Your task to perform on an android device: Open wifi settings Image 0: 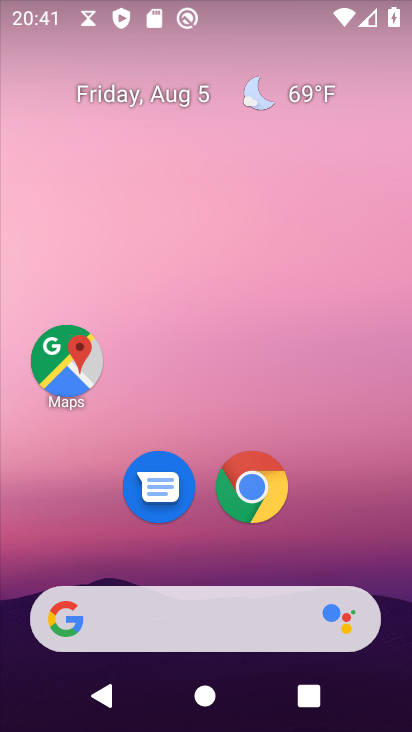
Step 0: drag from (222, 631) to (304, 108)
Your task to perform on an android device: Open wifi settings Image 1: 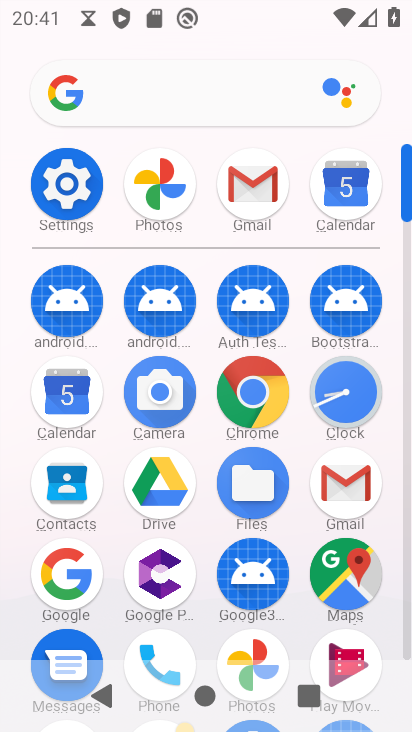
Step 1: click (73, 185)
Your task to perform on an android device: Open wifi settings Image 2: 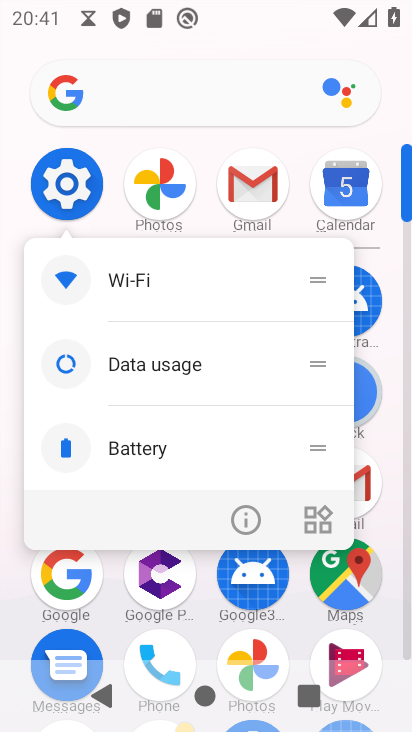
Step 2: click (73, 185)
Your task to perform on an android device: Open wifi settings Image 3: 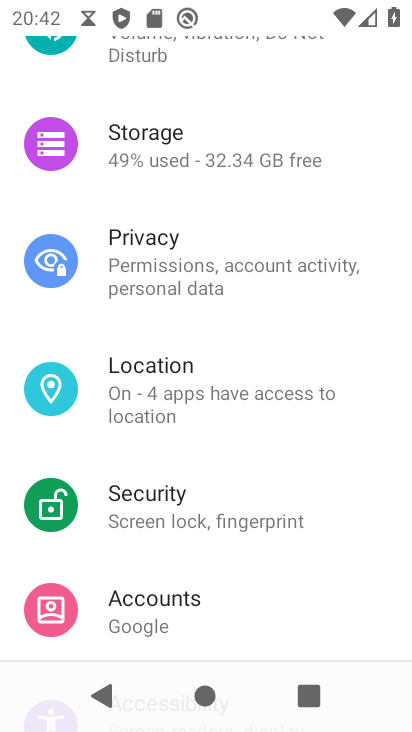
Step 3: drag from (241, 105) to (219, 528)
Your task to perform on an android device: Open wifi settings Image 4: 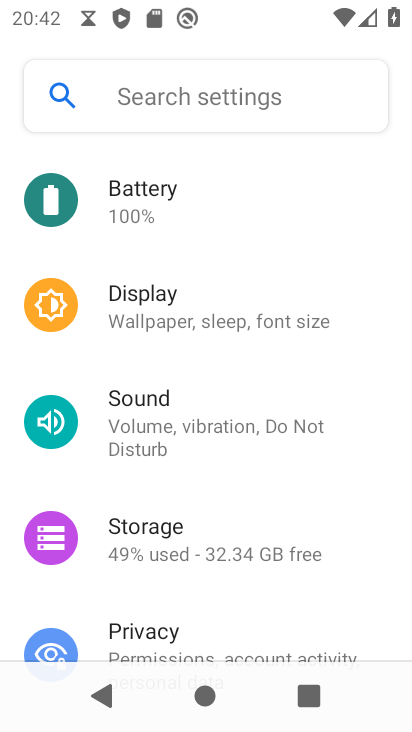
Step 4: drag from (265, 252) to (303, 621)
Your task to perform on an android device: Open wifi settings Image 5: 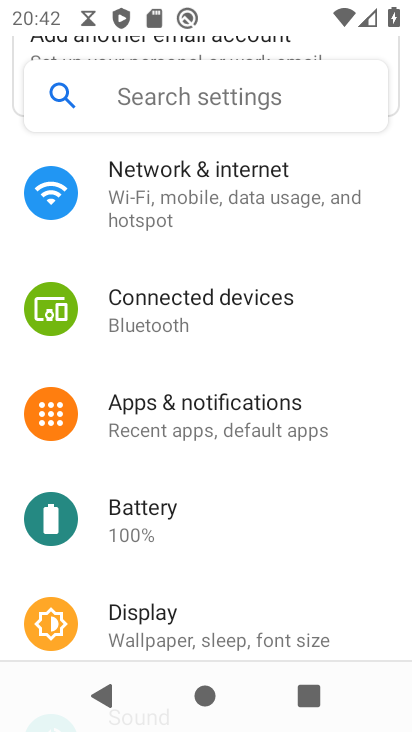
Step 5: drag from (282, 249) to (302, 575)
Your task to perform on an android device: Open wifi settings Image 6: 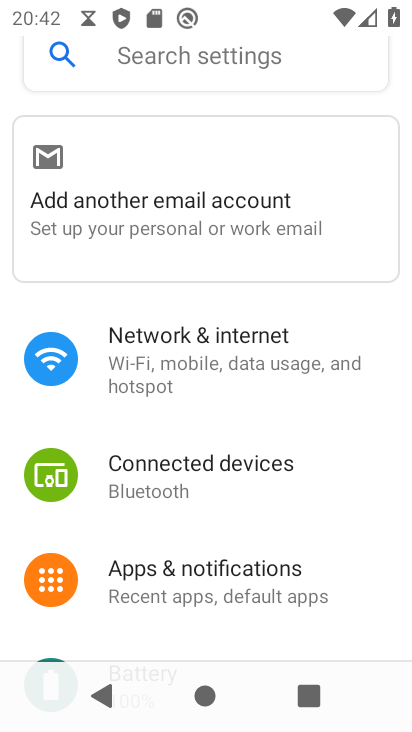
Step 6: click (250, 388)
Your task to perform on an android device: Open wifi settings Image 7: 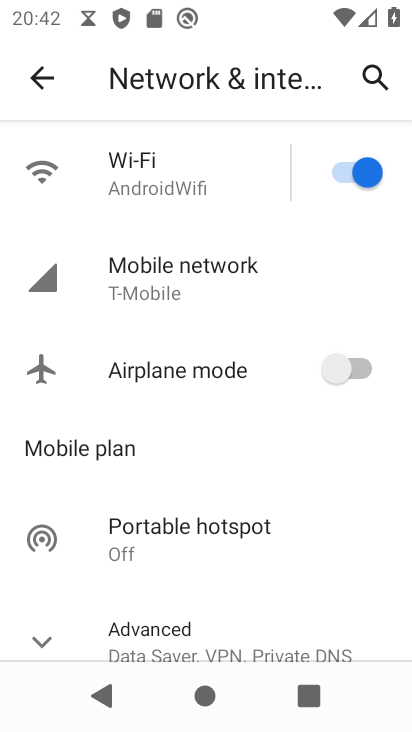
Step 7: click (137, 184)
Your task to perform on an android device: Open wifi settings Image 8: 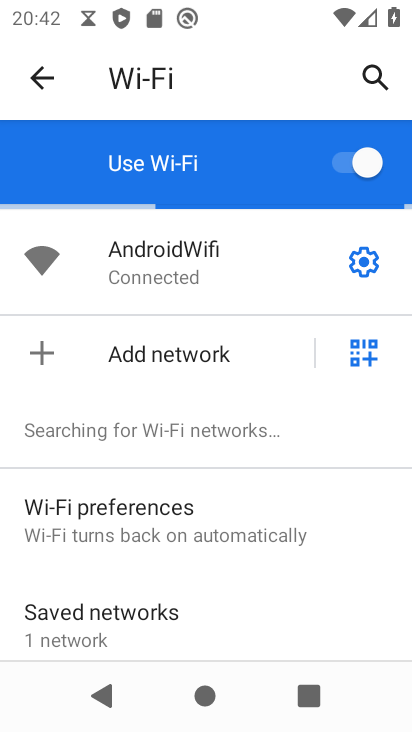
Step 8: task complete